Your task to perform on an android device: change the clock display to analog Image 0: 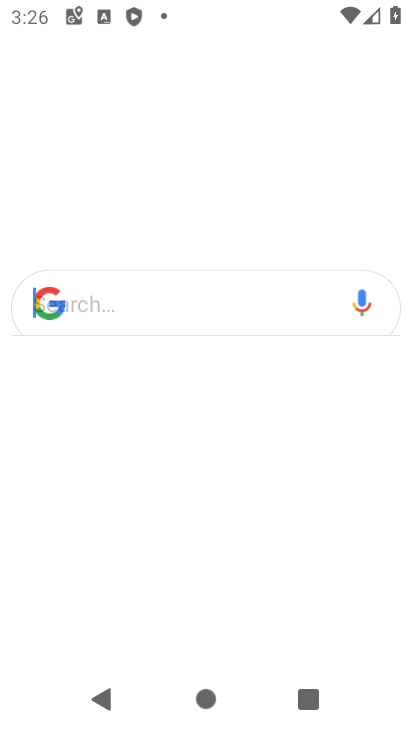
Step 0: drag from (338, 515) to (311, 292)
Your task to perform on an android device: change the clock display to analog Image 1: 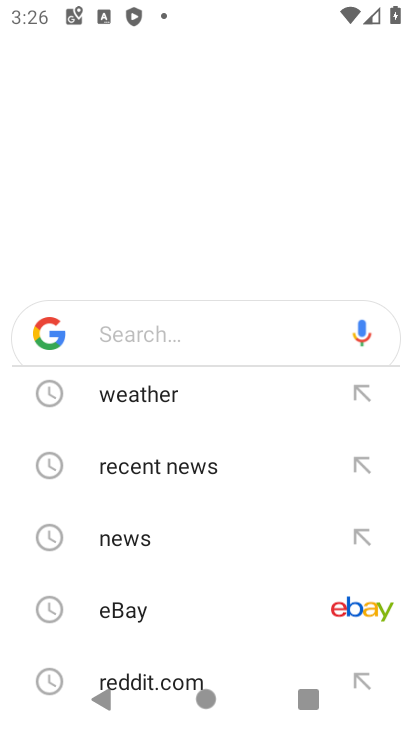
Step 1: press back button
Your task to perform on an android device: change the clock display to analog Image 2: 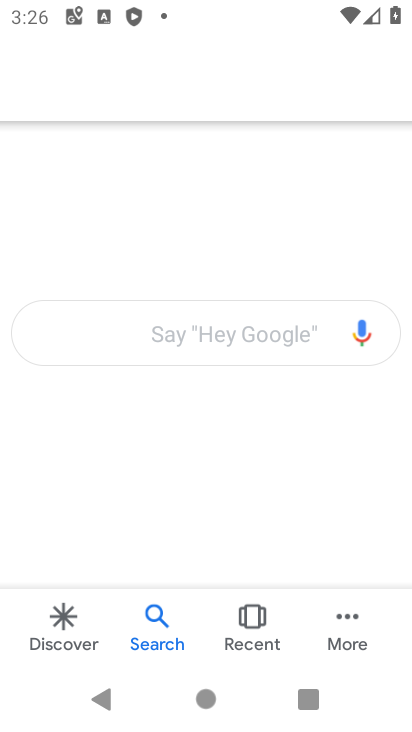
Step 2: press back button
Your task to perform on an android device: change the clock display to analog Image 3: 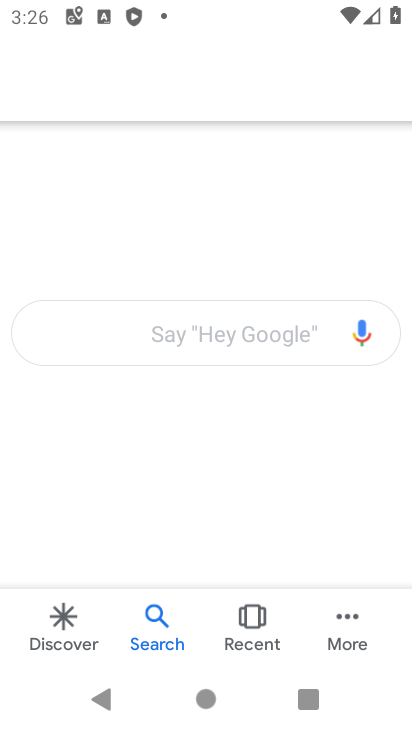
Step 3: press back button
Your task to perform on an android device: change the clock display to analog Image 4: 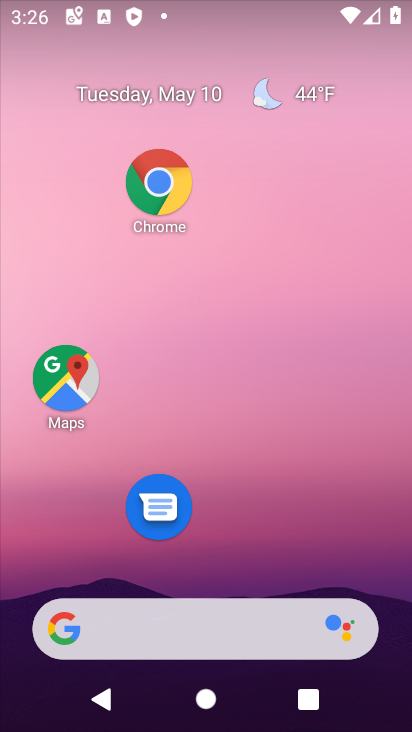
Step 4: drag from (279, 576) to (237, 53)
Your task to perform on an android device: change the clock display to analog Image 5: 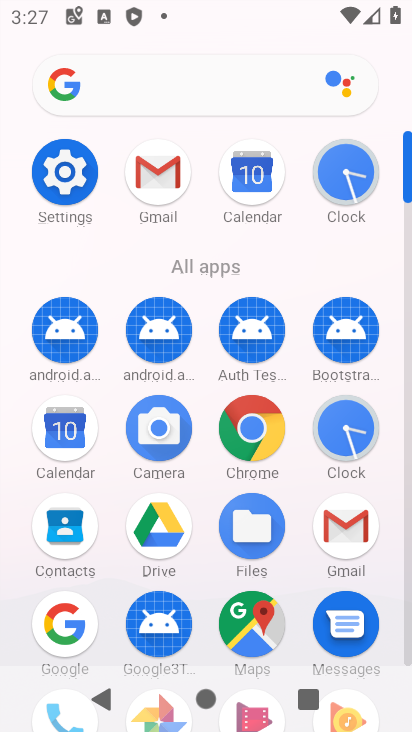
Step 5: click (345, 171)
Your task to perform on an android device: change the clock display to analog Image 6: 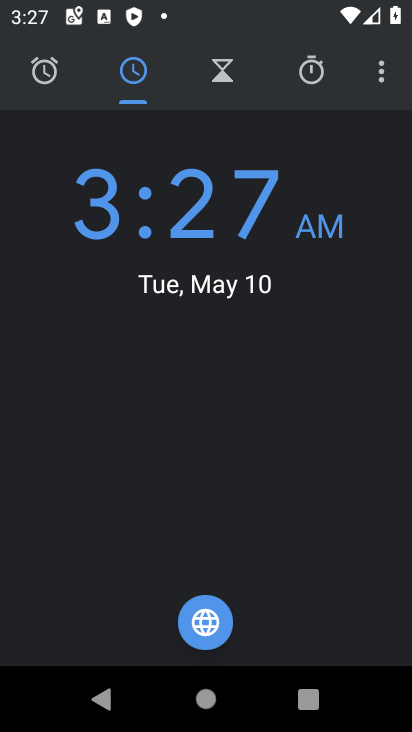
Step 6: click (386, 82)
Your task to perform on an android device: change the clock display to analog Image 7: 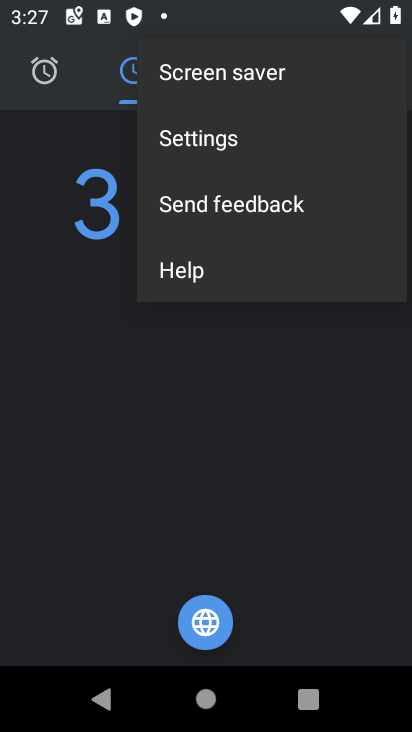
Step 7: click (315, 146)
Your task to perform on an android device: change the clock display to analog Image 8: 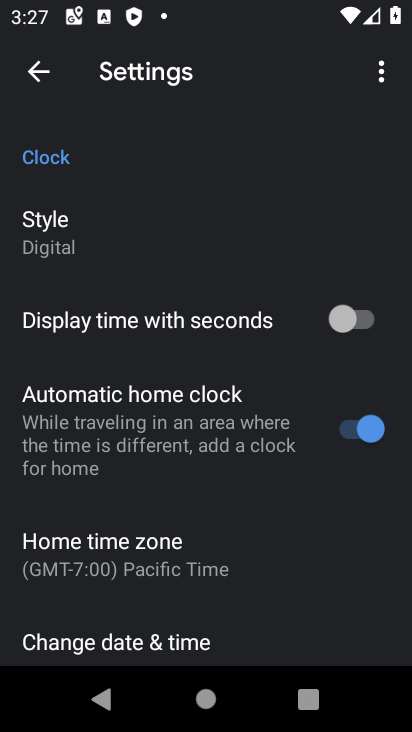
Step 8: click (139, 251)
Your task to perform on an android device: change the clock display to analog Image 9: 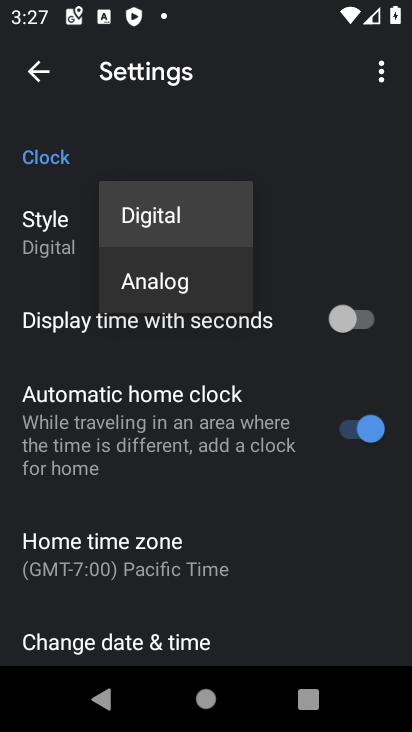
Step 9: click (167, 295)
Your task to perform on an android device: change the clock display to analog Image 10: 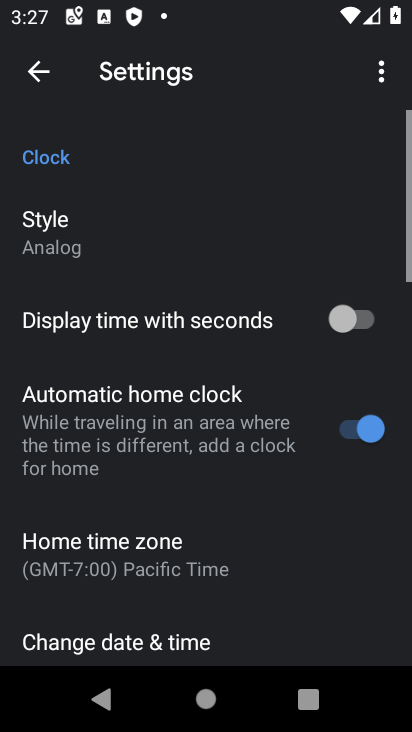
Step 10: task complete